Your task to perform on an android device: What's on my calendar tomorrow? Image 0: 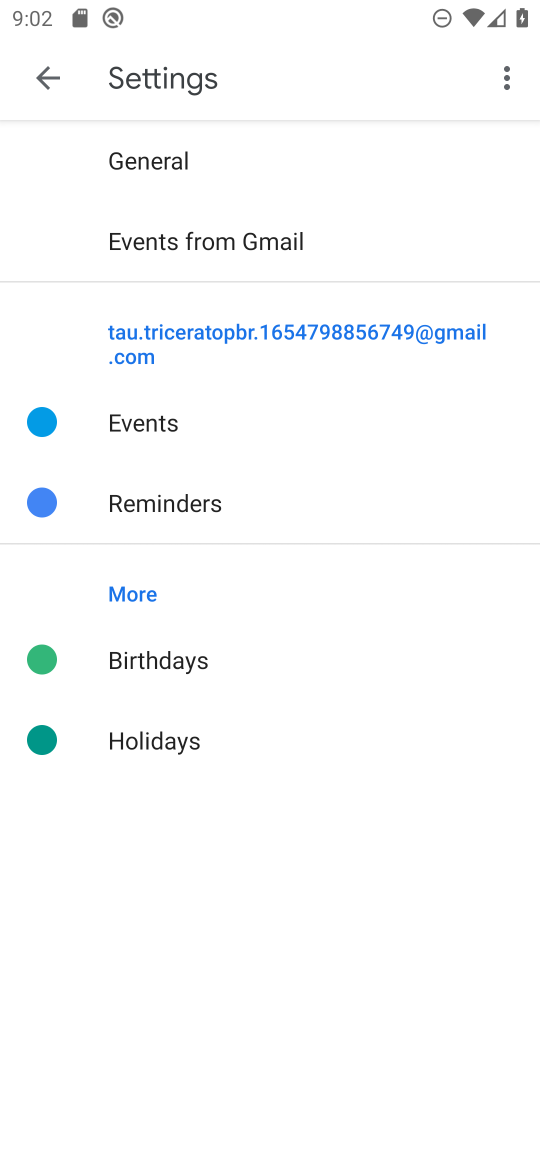
Step 0: press home button
Your task to perform on an android device: What's on my calendar tomorrow? Image 1: 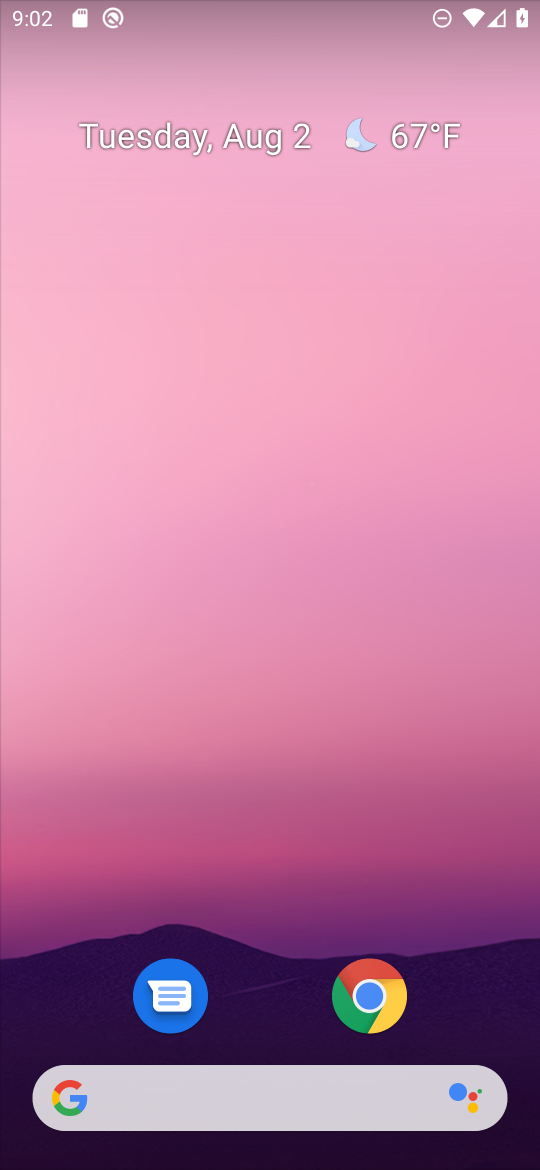
Step 1: drag from (296, 1060) to (329, 193)
Your task to perform on an android device: What's on my calendar tomorrow? Image 2: 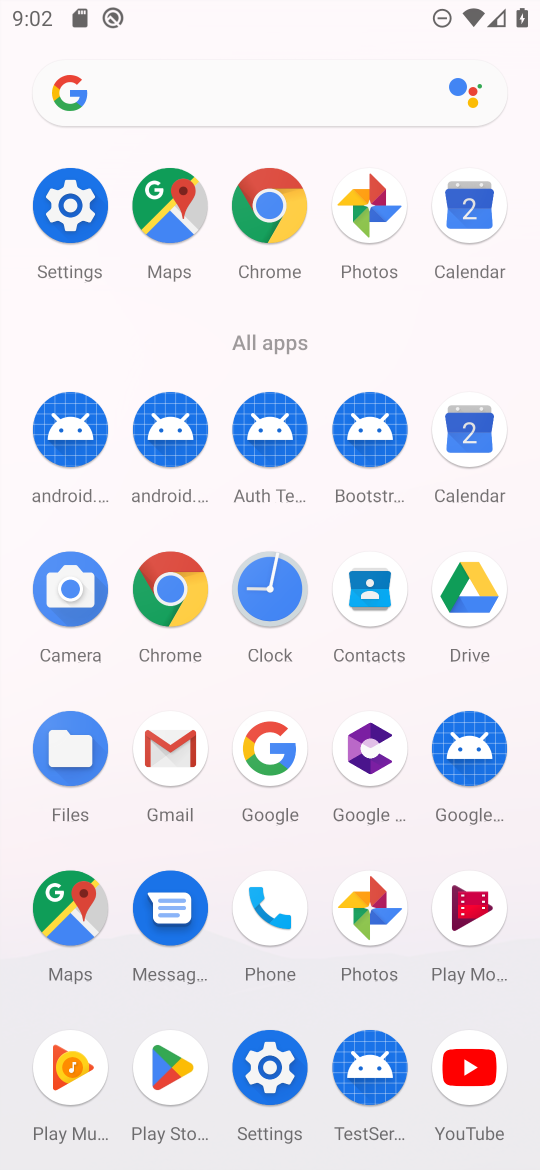
Step 2: click (466, 428)
Your task to perform on an android device: What's on my calendar tomorrow? Image 3: 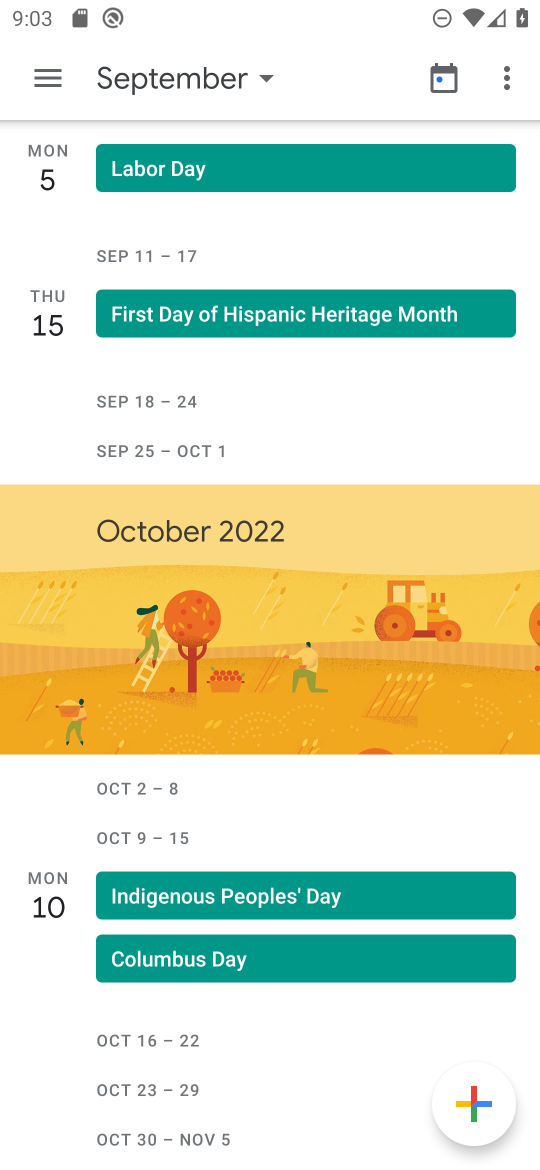
Step 3: click (191, 74)
Your task to perform on an android device: What's on my calendar tomorrow? Image 4: 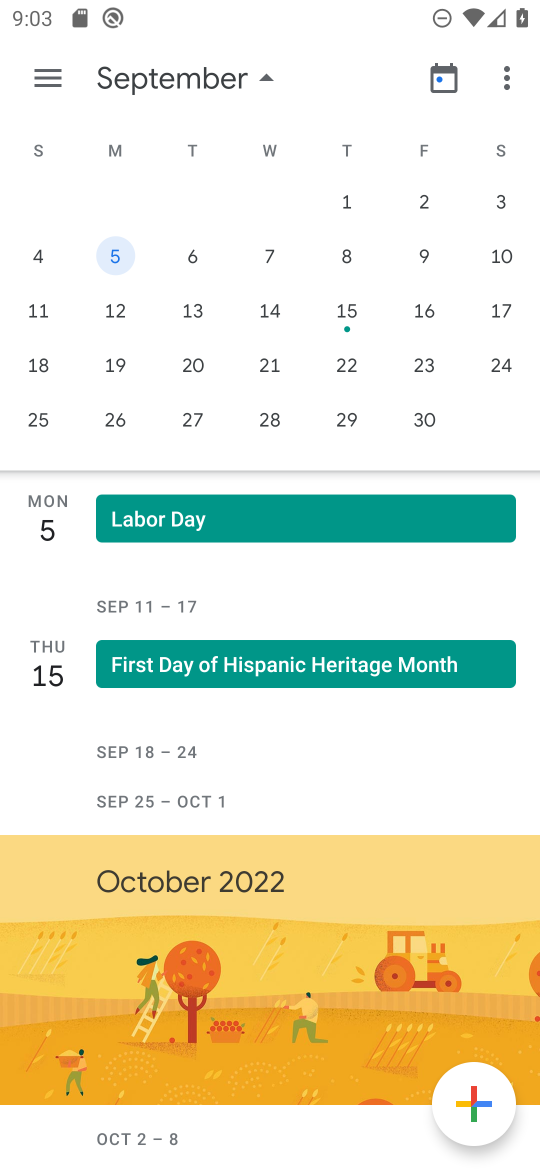
Step 4: click (502, 199)
Your task to perform on an android device: What's on my calendar tomorrow? Image 5: 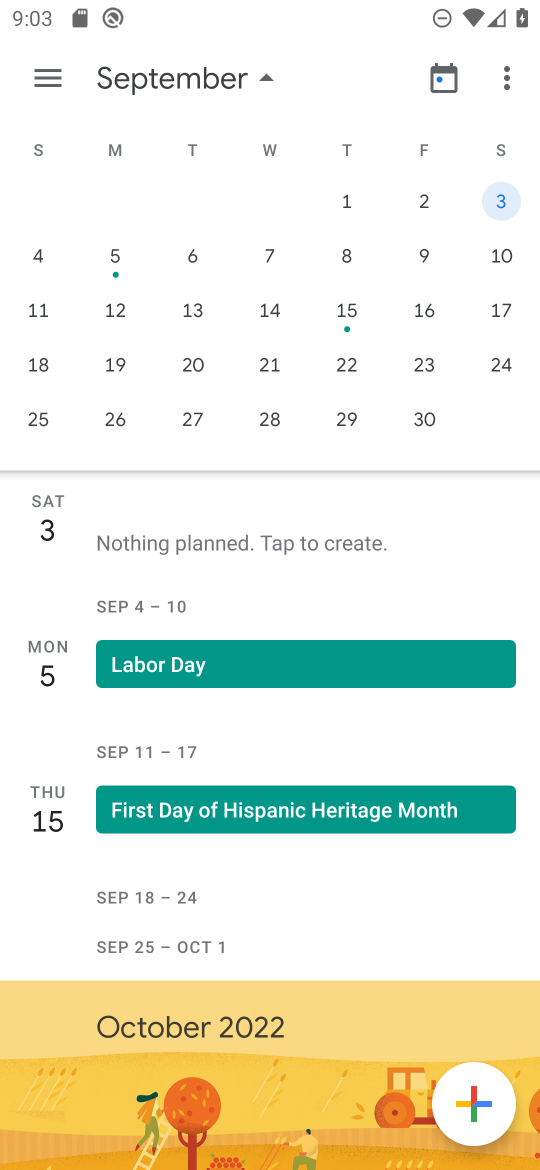
Step 5: task complete